Your task to perform on an android device: open a new tab in the chrome app Image 0: 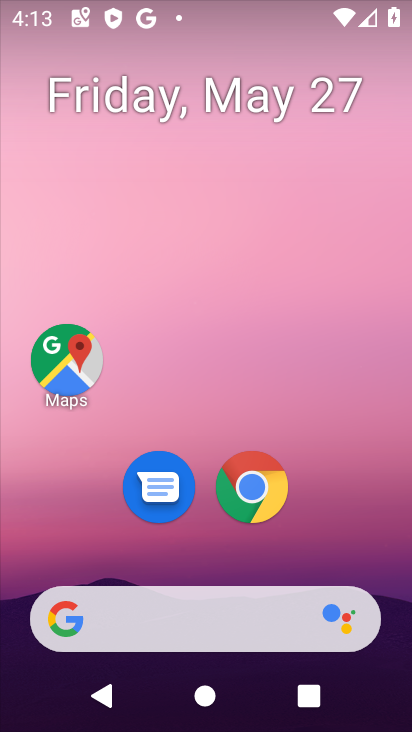
Step 0: click (257, 482)
Your task to perform on an android device: open a new tab in the chrome app Image 1: 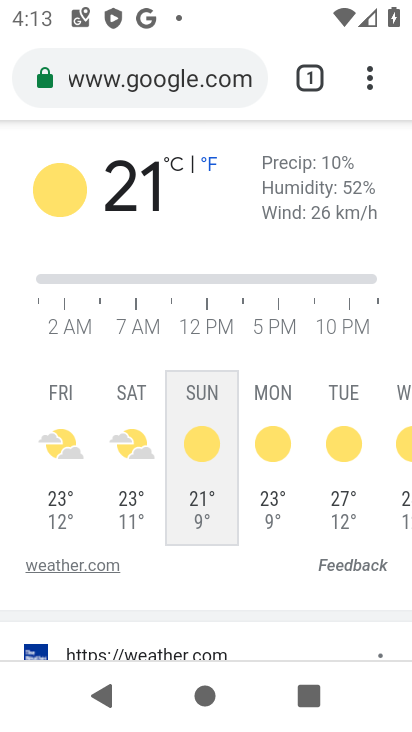
Step 1: click (374, 70)
Your task to perform on an android device: open a new tab in the chrome app Image 2: 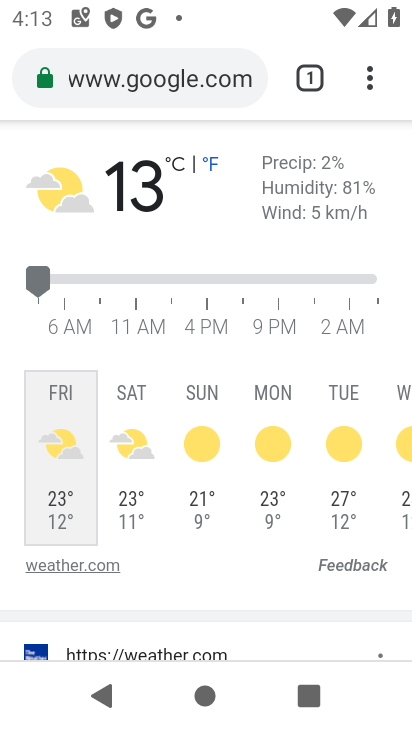
Step 2: task complete